Your task to perform on an android device: turn pop-ups off in chrome Image 0: 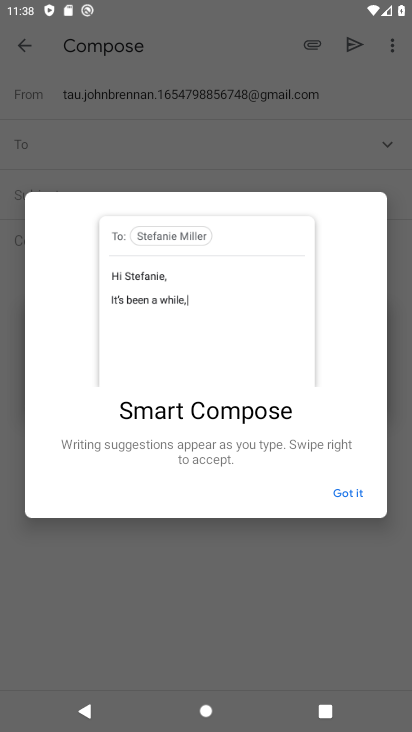
Step 0: press home button
Your task to perform on an android device: turn pop-ups off in chrome Image 1: 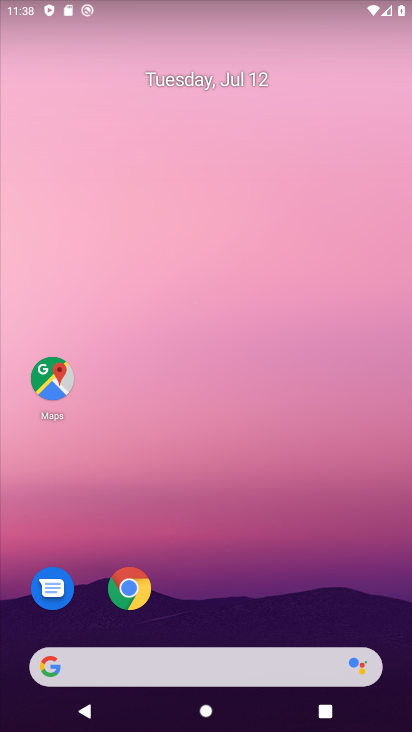
Step 1: click (146, 595)
Your task to perform on an android device: turn pop-ups off in chrome Image 2: 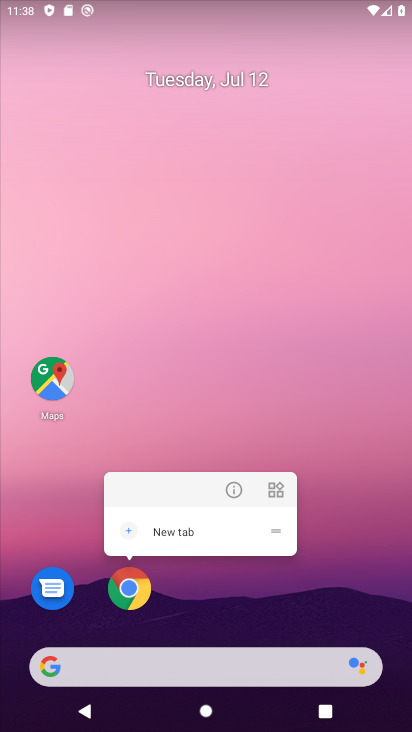
Step 2: click (134, 595)
Your task to perform on an android device: turn pop-ups off in chrome Image 3: 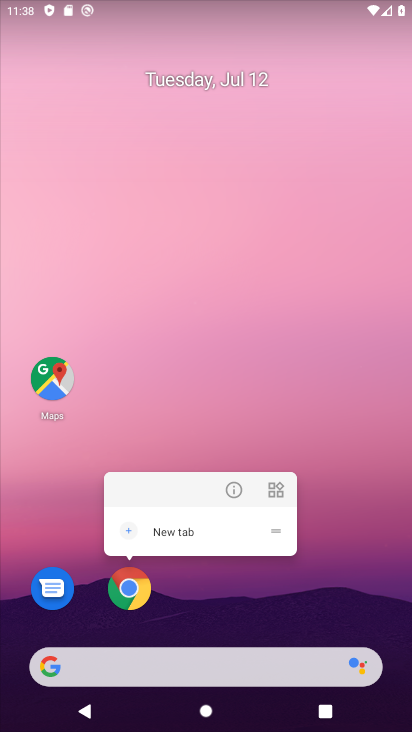
Step 3: click (133, 594)
Your task to perform on an android device: turn pop-ups off in chrome Image 4: 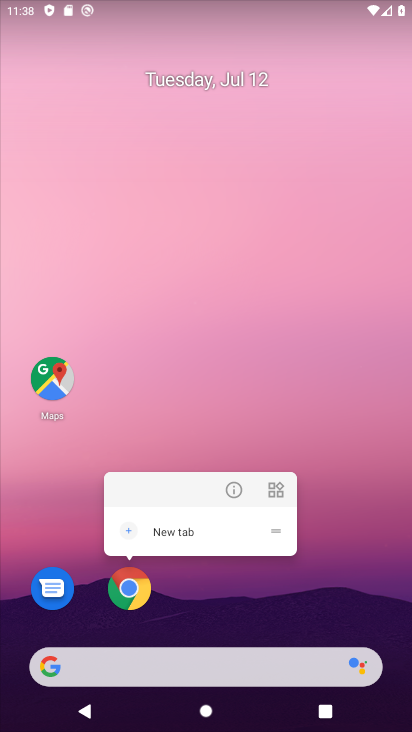
Step 4: click (146, 595)
Your task to perform on an android device: turn pop-ups off in chrome Image 5: 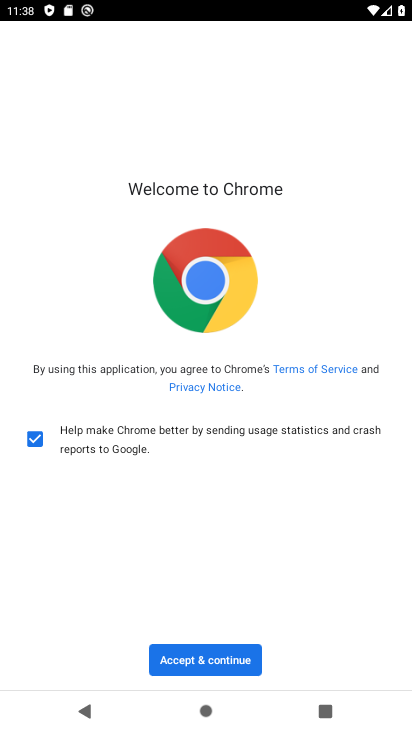
Step 5: click (219, 662)
Your task to perform on an android device: turn pop-ups off in chrome Image 6: 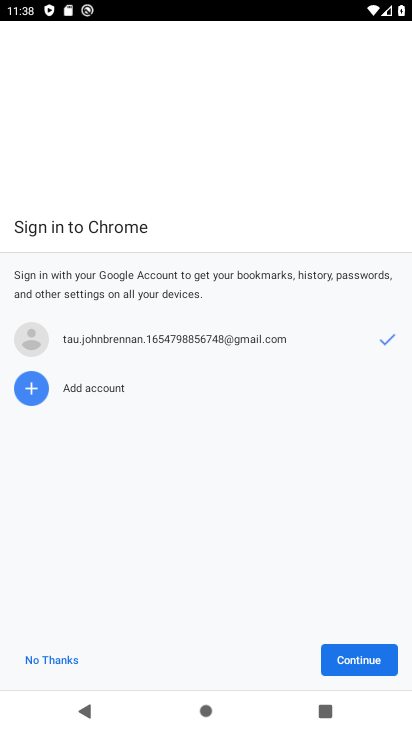
Step 6: click (379, 650)
Your task to perform on an android device: turn pop-ups off in chrome Image 7: 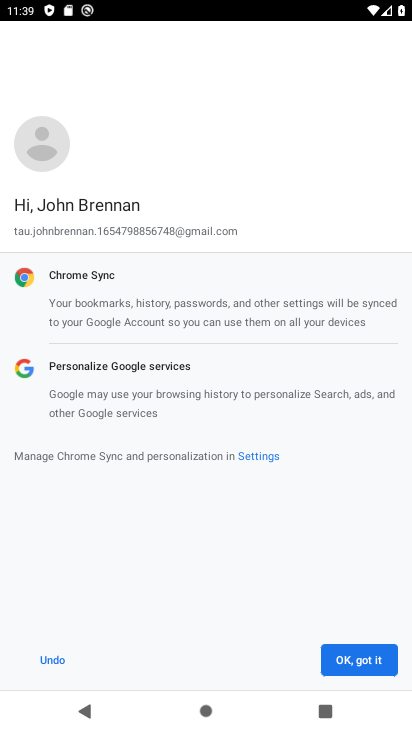
Step 7: click (377, 655)
Your task to perform on an android device: turn pop-ups off in chrome Image 8: 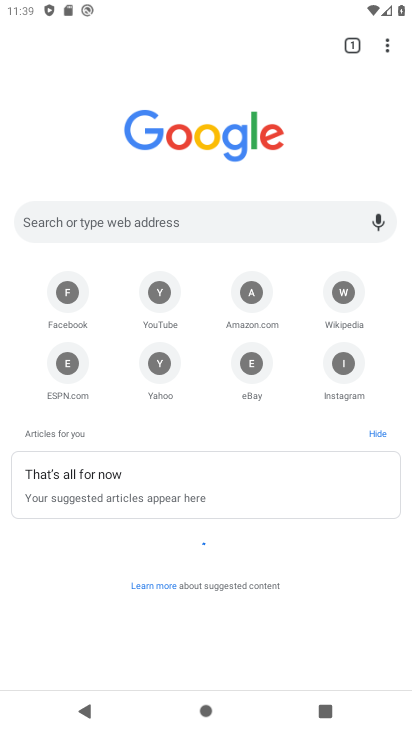
Step 8: drag from (386, 45) to (262, 376)
Your task to perform on an android device: turn pop-ups off in chrome Image 9: 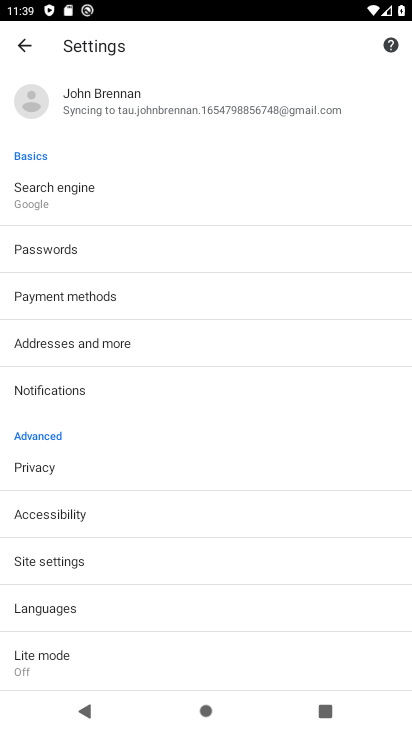
Step 9: click (80, 573)
Your task to perform on an android device: turn pop-ups off in chrome Image 10: 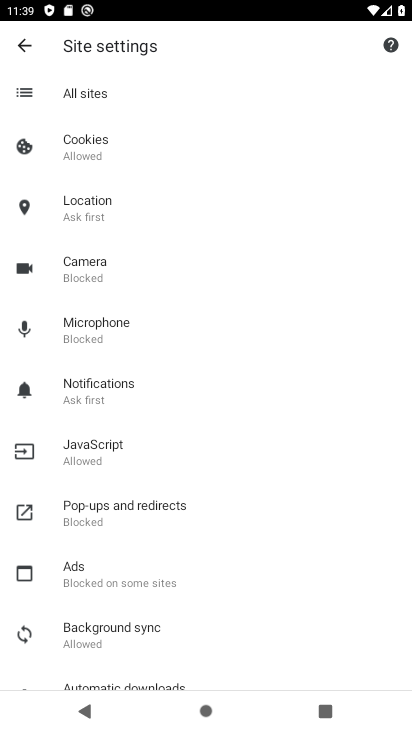
Step 10: click (146, 505)
Your task to perform on an android device: turn pop-ups off in chrome Image 11: 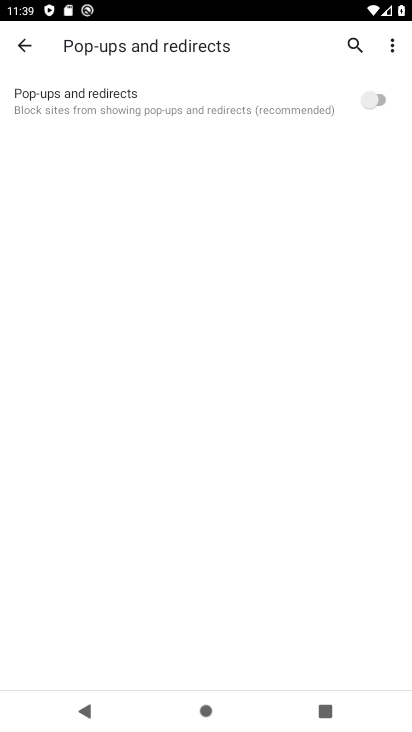
Step 11: task complete